Your task to perform on an android device: Turn off the flashlight Image 0: 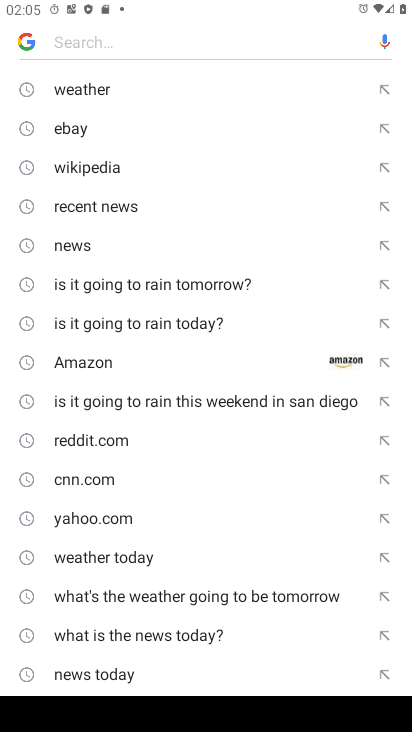
Step 0: press home button
Your task to perform on an android device: Turn off the flashlight Image 1: 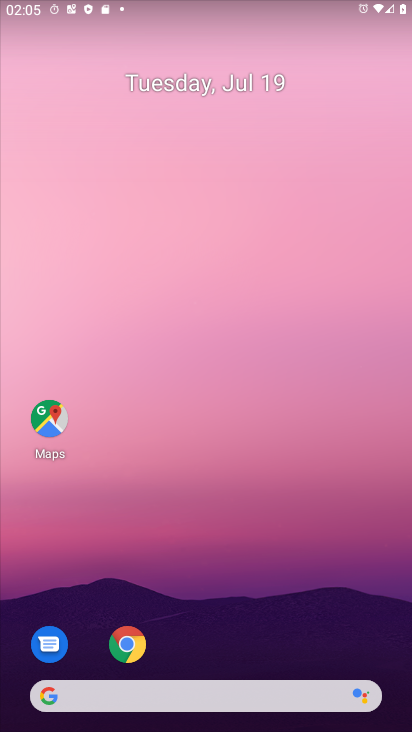
Step 1: drag from (207, 689) to (209, 71)
Your task to perform on an android device: Turn off the flashlight Image 2: 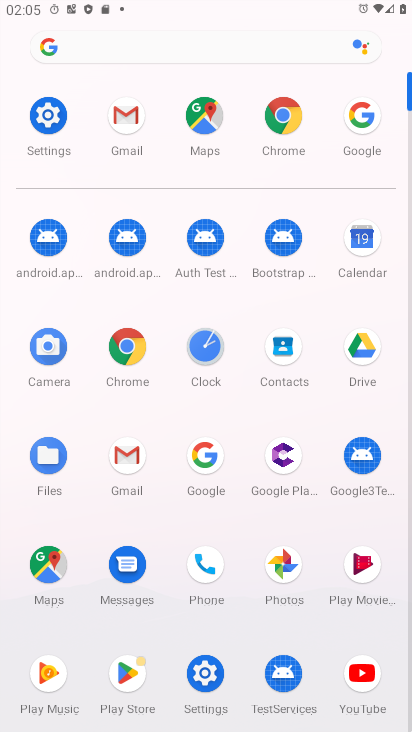
Step 2: click (197, 679)
Your task to perform on an android device: Turn off the flashlight Image 3: 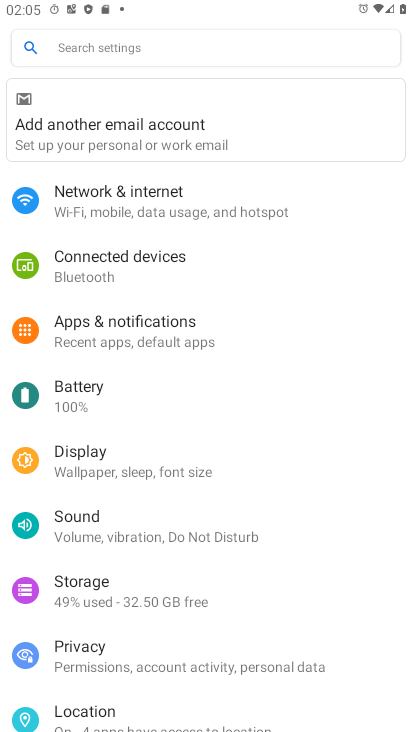
Step 3: task complete